Your task to perform on an android device: empty trash in the gmail app Image 0: 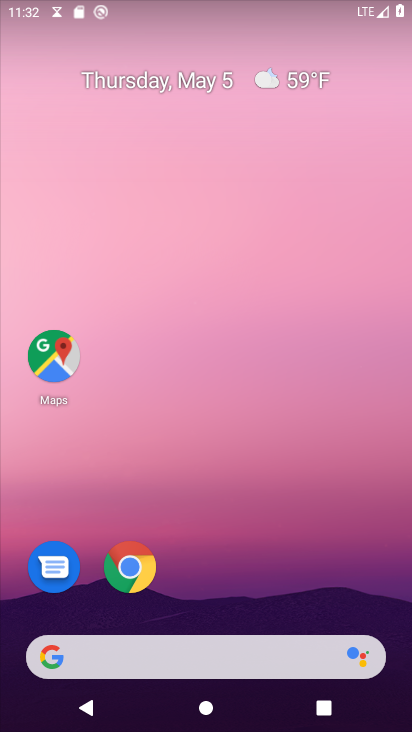
Step 0: click (52, 360)
Your task to perform on an android device: empty trash in the gmail app Image 1: 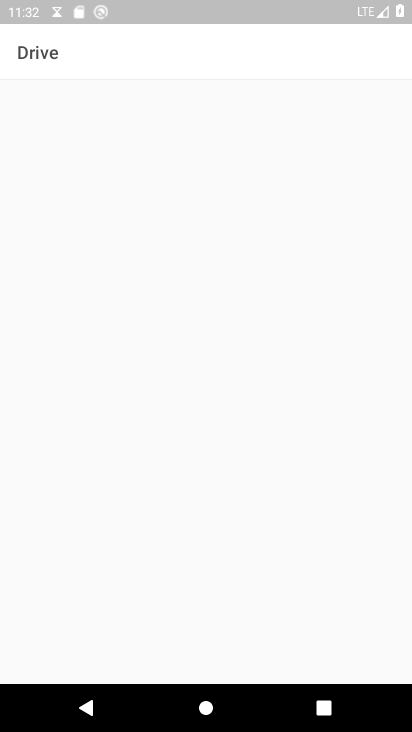
Step 1: press home button
Your task to perform on an android device: empty trash in the gmail app Image 2: 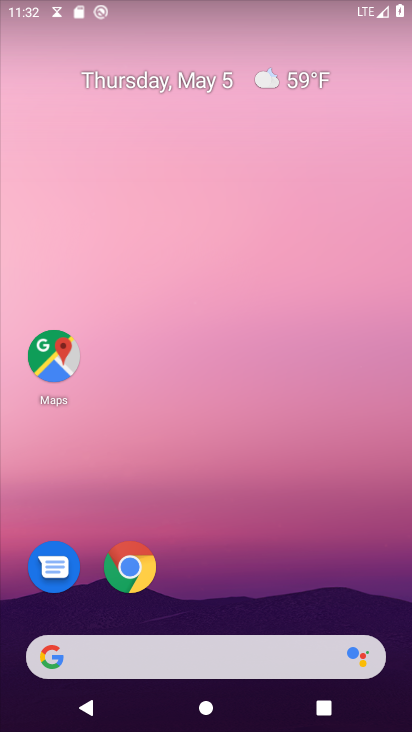
Step 2: drag from (351, 607) to (357, 13)
Your task to perform on an android device: empty trash in the gmail app Image 3: 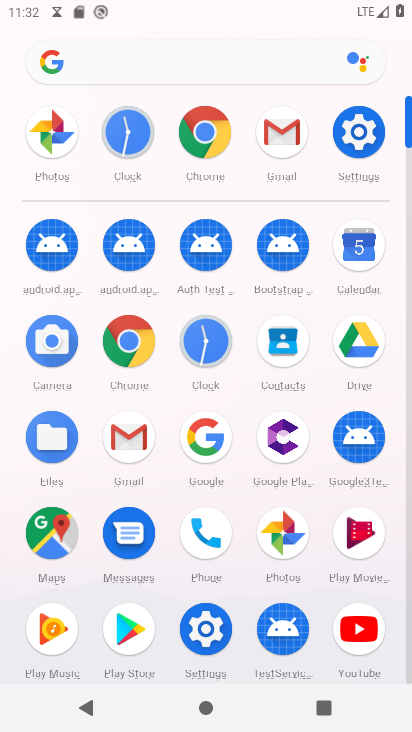
Step 3: click (280, 131)
Your task to perform on an android device: empty trash in the gmail app Image 4: 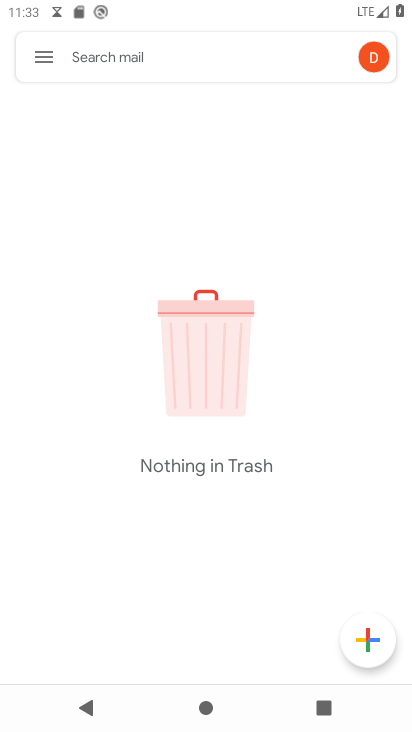
Step 4: task complete